Your task to perform on an android device: add a label to a message in the gmail app Image 0: 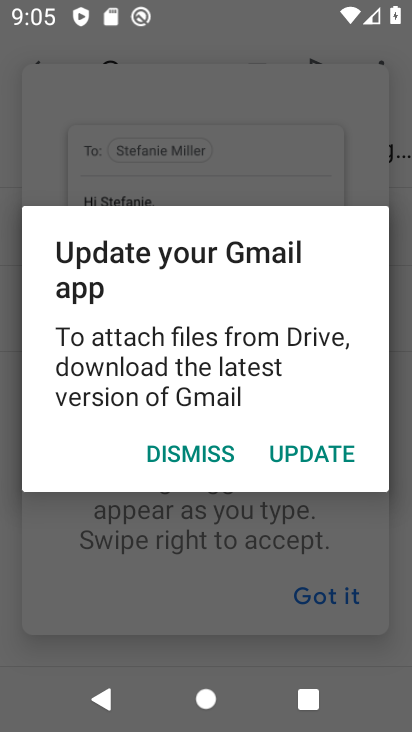
Step 0: press home button
Your task to perform on an android device: add a label to a message in the gmail app Image 1: 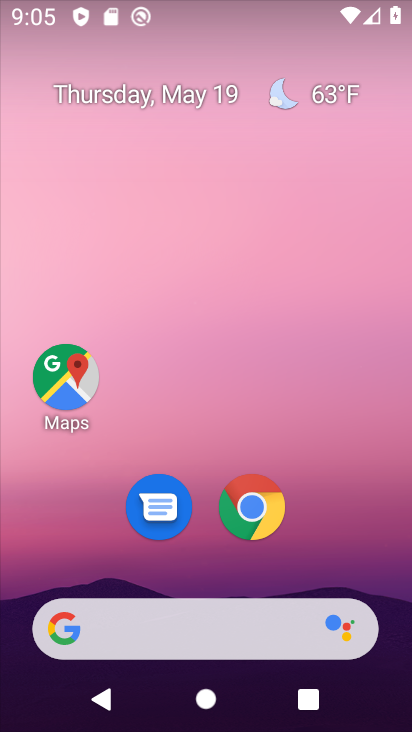
Step 1: drag from (373, 552) to (324, 51)
Your task to perform on an android device: add a label to a message in the gmail app Image 2: 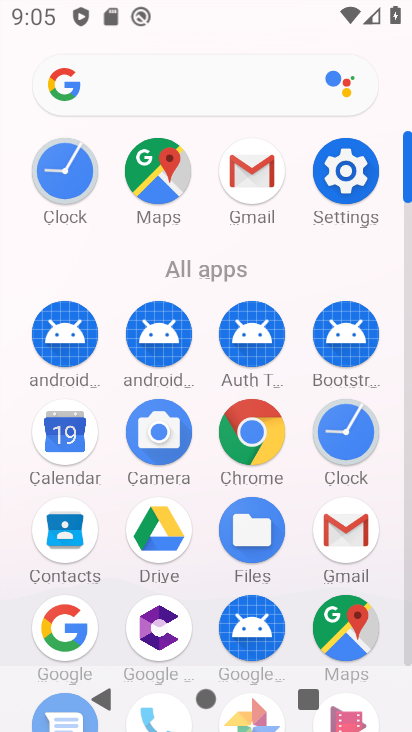
Step 2: click (257, 171)
Your task to perform on an android device: add a label to a message in the gmail app Image 3: 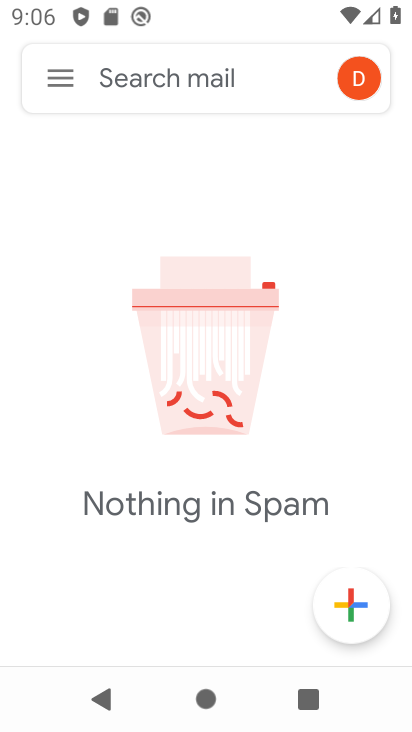
Step 3: click (61, 91)
Your task to perform on an android device: add a label to a message in the gmail app Image 4: 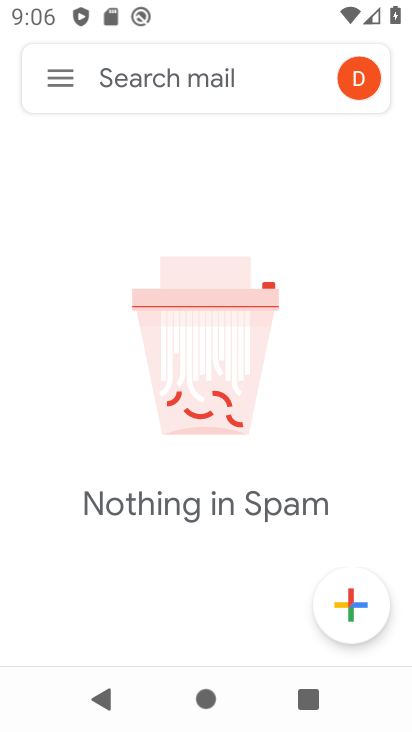
Step 4: click (61, 91)
Your task to perform on an android device: add a label to a message in the gmail app Image 5: 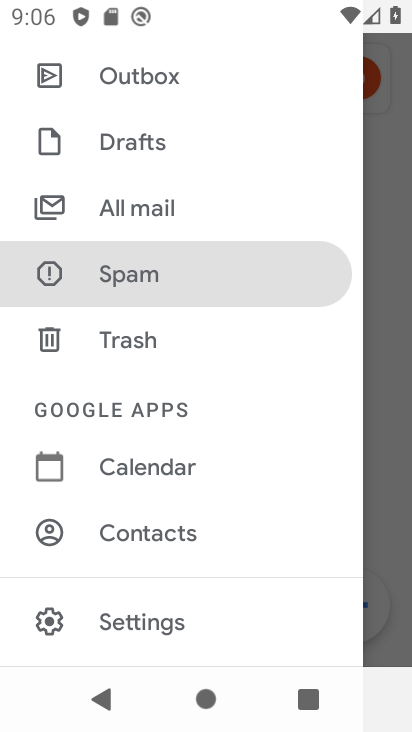
Step 5: click (156, 194)
Your task to perform on an android device: add a label to a message in the gmail app Image 6: 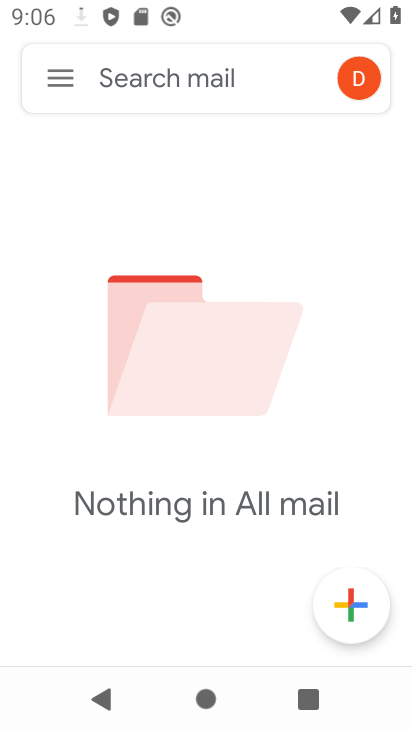
Step 6: task complete